Your task to perform on an android device: see tabs open on other devices in the chrome app Image 0: 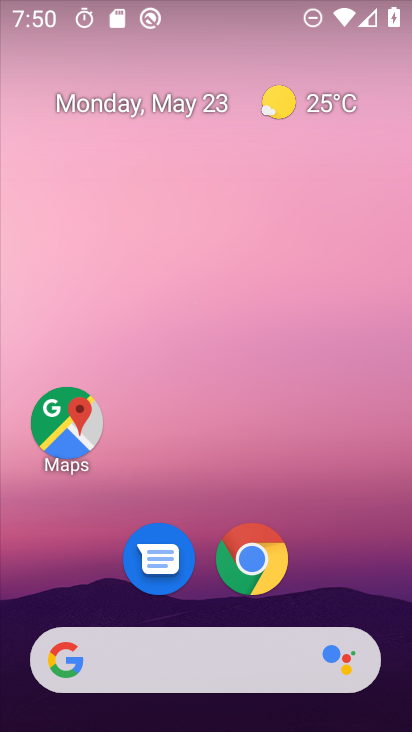
Step 0: drag from (389, 615) to (288, 42)
Your task to perform on an android device: see tabs open on other devices in the chrome app Image 1: 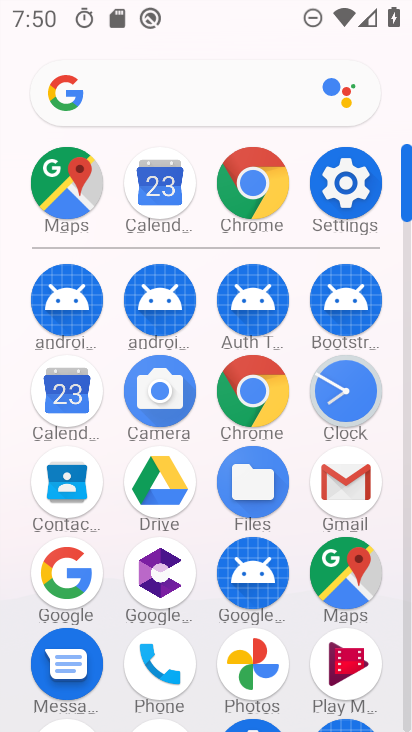
Step 1: click (272, 185)
Your task to perform on an android device: see tabs open on other devices in the chrome app Image 2: 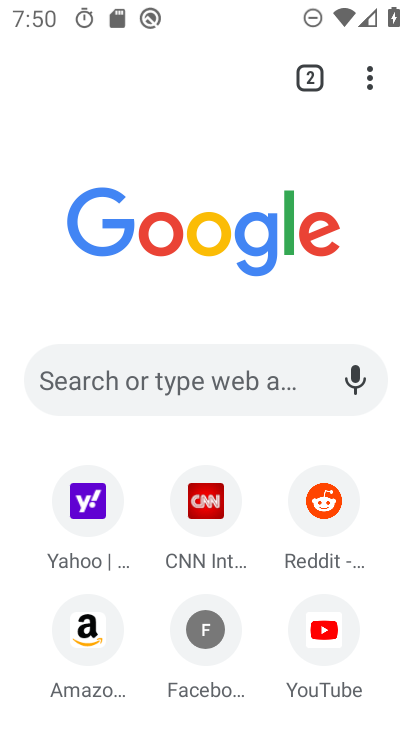
Step 2: task complete